Your task to perform on an android device: Empty the shopping cart on target.com. Search for bose quietcomfort 35 on target.com, select the first entry, and add it to the cart. Image 0: 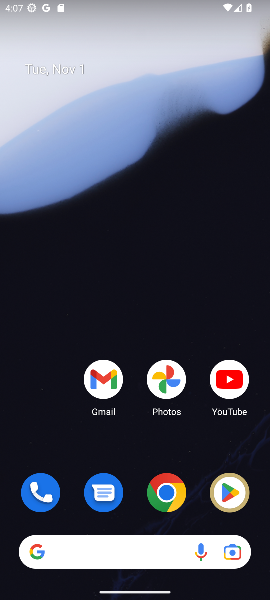
Step 0: click (171, 501)
Your task to perform on an android device: Empty the shopping cart on target.com. Search for bose quietcomfort 35 on target.com, select the first entry, and add it to the cart. Image 1: 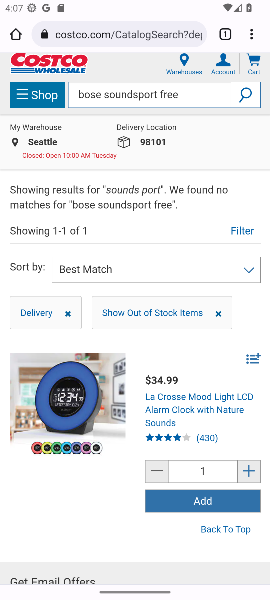
Step 1: click (105, 41)
Your task to perform on an android device: Empty the shopping cart on target.com. Search for bose quietcomfort 35 on target.com, select the first entry, and add it to the cart. Image 2: 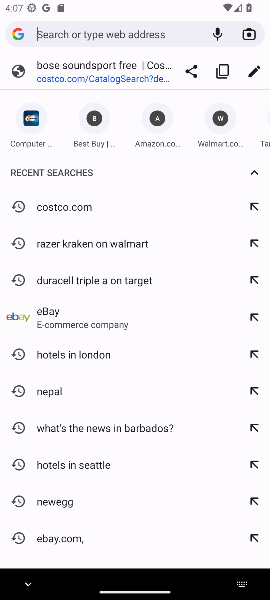
Step 2: type "target.com"
Your task to perform on an android device: Empty the shopping cart on target.com. Search for bose quietcomfort 35 on target.com, select the first entry, and add it to the cart. Image 3: 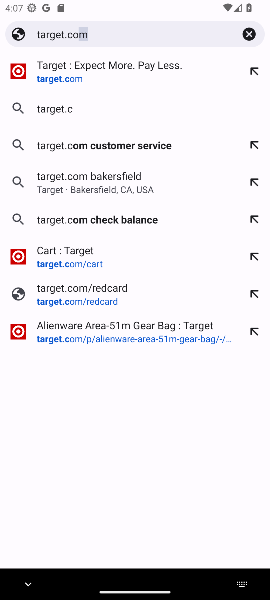
Step 3: type ""
Your task to perform on an android device: Empty the shopping cart on target.com. Search for bose quietcomfort 35 on target.com, select the first entry, and add it to the cart. Image 4: 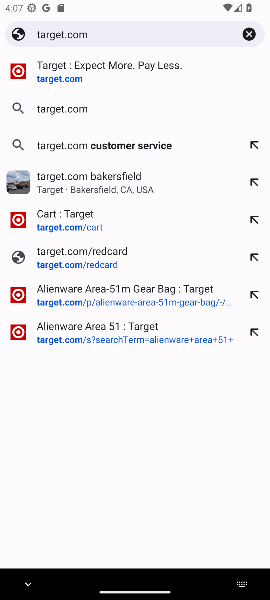
Step 4: click (107, 62)
Your task to perform on an android device: Empty the shopping cart on target.com. Search for bose quietcomfort 35 on target.com, select the first entry, and add it to the cart. Image 5: 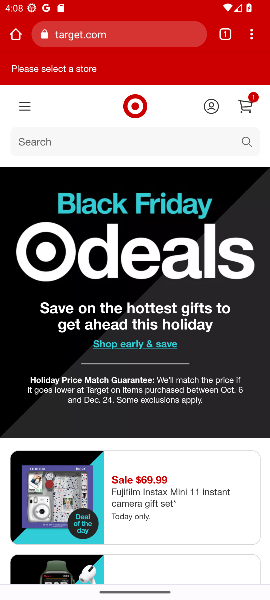
Step 5: drag from (142, 455) to (166, 207)
Your task to perform on an android device: Empty the shopping cart on target.com. Search for bose quietcomfort 35 on target.com, select the first entry, and add it to the cart. Image 6: 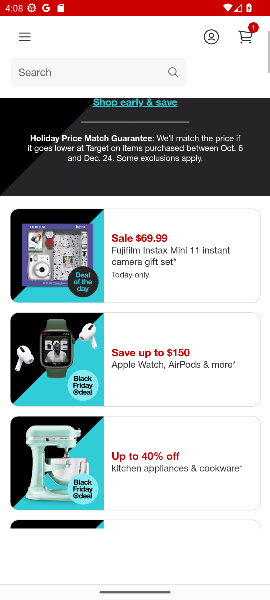
Step 6: drag from (136, 449) to (183, 542)
Your task to perform on an android device: Empty the shopping cart on target.com. Search for bose quietcomfort 35 on target.com, select the first entry, and add it to the cart. Image 7: 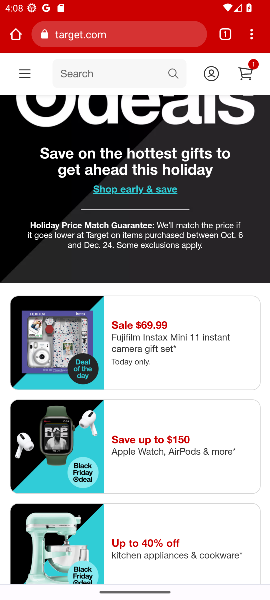
Step 7: click (251, 76)
Your task to perform on an android device: Empty the shopping cart on target.com. Search for bose quietcomfort 35 on target.com, select the first entry, and add it to the cart. Image 8: 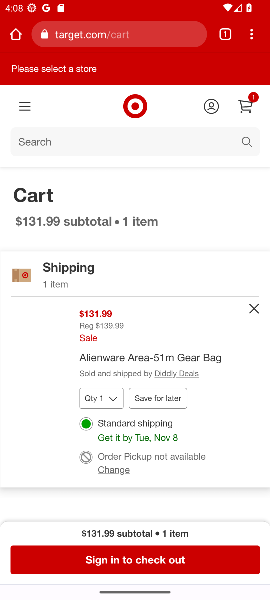
Step 8: click (96, 392)
Your task to perform on an android device: Empty the shopping cart on target.com. Search for bose quietcomfort 35 on target.com, select the first entry, and add it to the cart. Image 9: 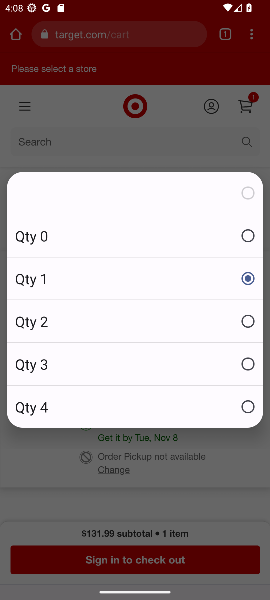
Step 9: click (117, 250)
Your task to perform on an android device: Empty the shopping cart on target.com. Search for bose quietcomfort 35 on target.com, select the first entry, and add it to the cart. Image 10: 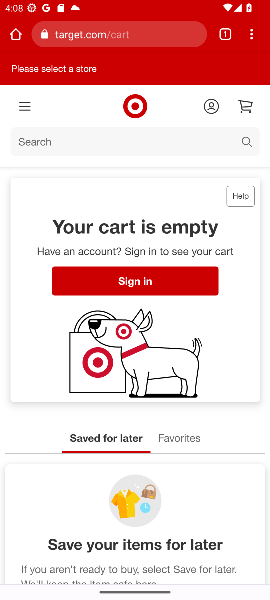
Step 10: click (96, 144)
Your task to perform on an android device: Empty the shopping cart on target.com. Search for bose quietcomfort 35 on target.com, select the first entry, and add it to the cart. Image 11: 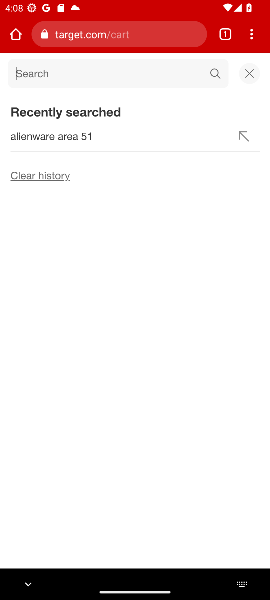
Step 11: type " bose quietcomfort 35"
Your task to perform on an android device: Empty the shopping cart on target.com. Search for bose quietcomfort 35 on target.com, select the first entry, and add it to the cart. Image 12: 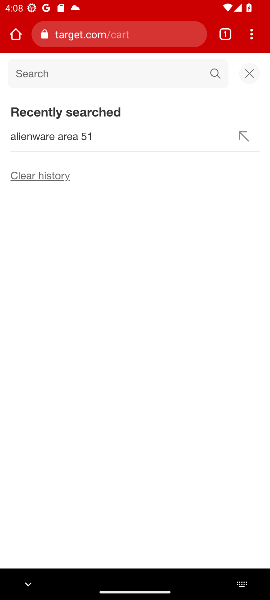
Step 12: type ""
Your task to perform on an android device: Empty the shopping cart on target.com. Search for bose quietcomfort 35 on target.com, select the first entry, and add it to the cart. Image 13: 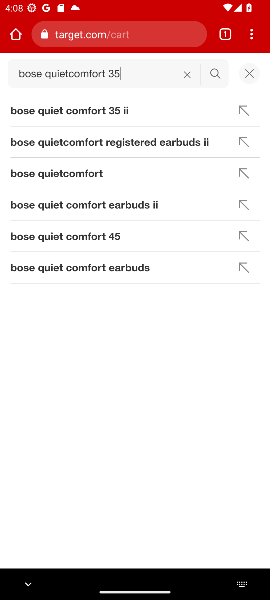
Step 13: press enter
Your task to perform on an android device: Empty the shopping cart on target.com. Search for bose quietcomfort 35 on target.com, select the first entry, and add it to the cart. Image 14: 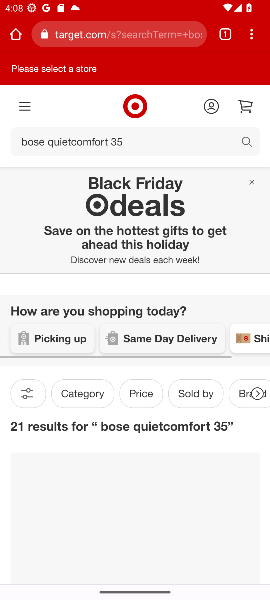
Step 14: drag from (154, 537) to (190, 320)
Your task to perform on an android device: Empty the shopping cart on target.com. Search for bose quietcomfort 35 on target.com, select the first entry, and add it to the cart. Image 15: 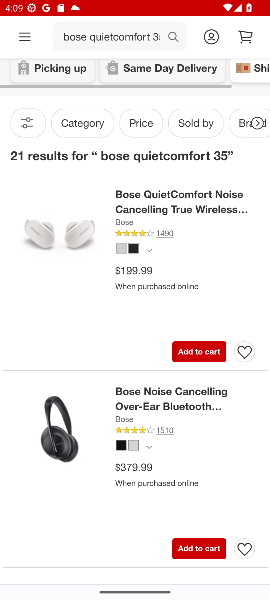
Step 15: click (173, 207)
Your task to perform on an android device: Empty the shopping cart on target.com. Search for bose quietcomfort 35 on target.com, select the first entry, and add it to the cart. Image 16: 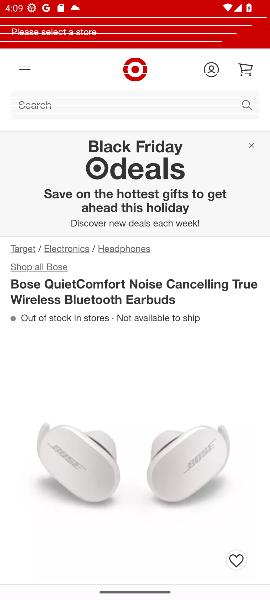
Step 16: drag from (153, 437) to (136, 209)
Your task to perform on an android device: Empty the shopping cart on target.com. Search for bose quietcomfort 35 on target.com, select the first entry, and add it to the cart. Image 17: 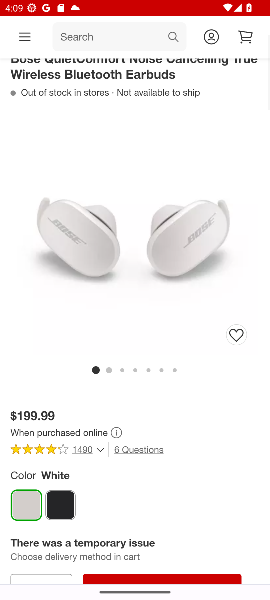
Step 17: drag from (149, 415) to (178, 206)
Your task to perform on an android device: Empty the shopping cart on target.com. Search for bose quietcomfort 35 on target.com, select the first entry, and add it to the cart. Image 18: 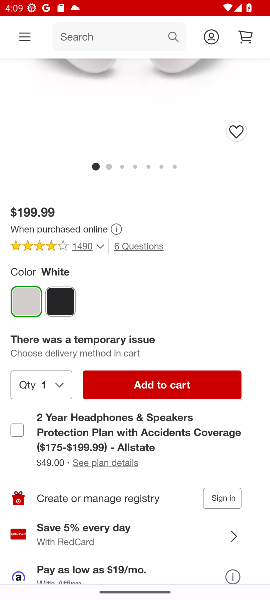
Step 18: click (146, 383)
Your task to perform on an android device: Empty the shopping cart on target.com. Search for bose quietcomfort 35 on target.com, select the first entry, and add it to the cart. Image 19: 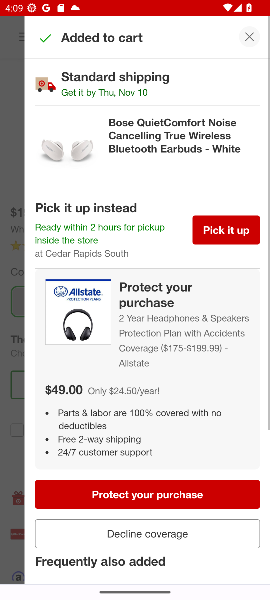
Step 19: click (190, 507)
Your task to perform on an android device: Empty the shopping cart on target.com. Search for bose quietcomfort 35 on target.com, select the first entry, and add it to the cart. Image 20: 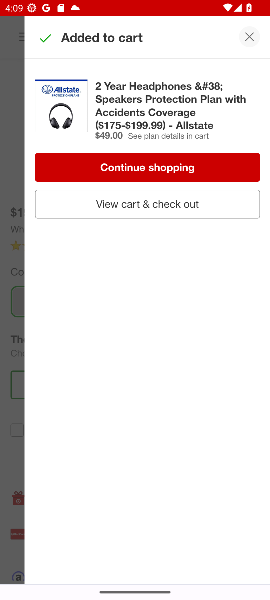
Step 20: click (181, 171)
Your task to perform on an android device: Empty the shopping cart on target.com. Search for bose quietcomfort 35 on target.com, select the first entry, and add it to the cart. Image 21: 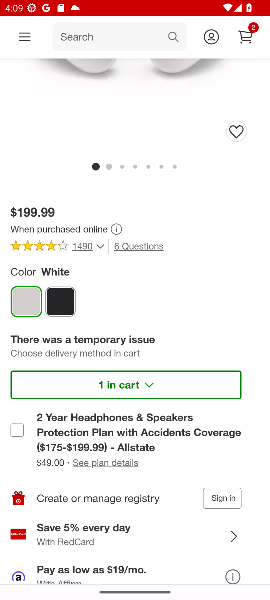
Step 21: drag from (168, 142) to (111, 134)
Your task to perform on an android device: Empty the shopping cart on target.com. Search for bose quietcomfort 35 on target.com, select the first entry, and add it to the cart. Image 22: 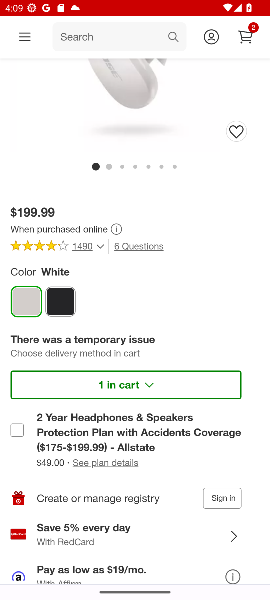
Step 22: drag from (165, 133) to (40, 125)
Your task to perform on an android device: Empty the shopping cart on target.com. Search for bose quietcomfort 35 on target.com, select the first entry, and add it to the cart. Image 23: 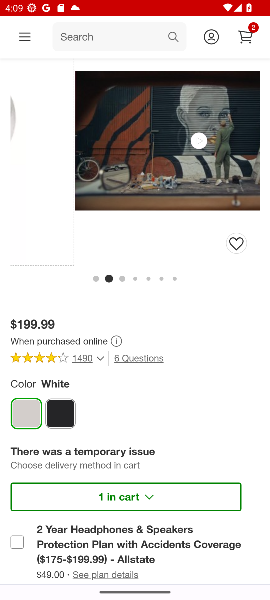
Step 23: drag from (165, 131) to (9, 143)
Your task to perform on an android device: Empty the shopping cart on target.com. Search for bose quietcomfort 35 on target.com, select the first entry, and add it to the cart. Image 24: 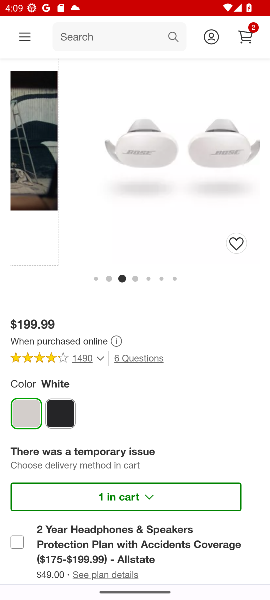
Step 24: drag from (154, 165) to (6, 179)
Your task to perform on an android device: Empty the shopping cart on target.com. Search for bose quietcomfort 35 on target.com, select the first entry, and add it to the cart. Image 25: 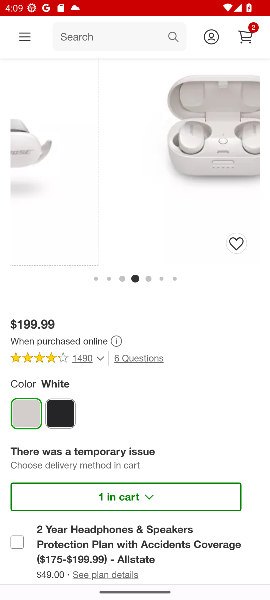
Step 25: drag from (141, 203) to (11, 200)
Your task to perform on an android device: Empty the shopping cart on target.com. Search for bose quietcomfort 35 on target.com, select the first entry, and add it to the cart. Image 26: 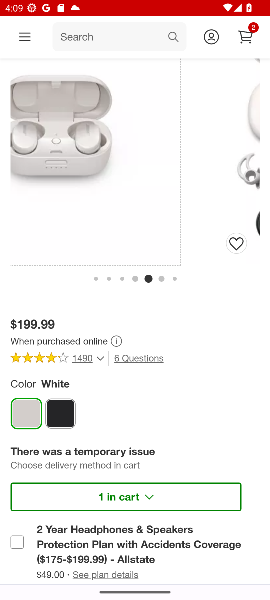
Step 26: drag from (181, 200) to (0, 197)
Your task to perform on an android device: Empty the shopping cart on target.com. Search for bose quietcomfort 35 on target.com, select the first entry, and add it to the cart. Image 27: 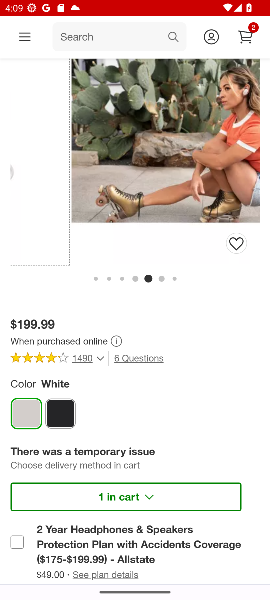
Step 27: drag from (190, 203) to (59, 199)
Your task to perform on an android device: Empty the shopping cart on target.com. Search for bose quietcomfort 35 on target.com, select the first entry, and add it to the cart. Image 28: 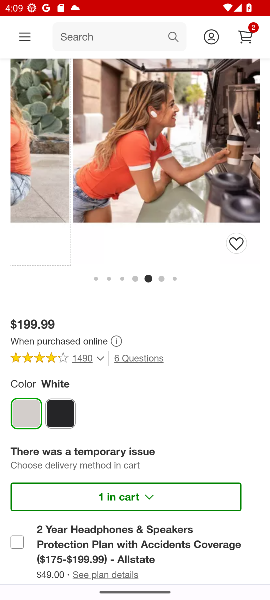
Step 28: drag from (136, 199) to (28, 203)
Your task to perform on an android device: Empty the shopping cart on target.com. Search for bose quietcomfort 35 on target.com, select the first entry, and add it to the cart. Image 29: 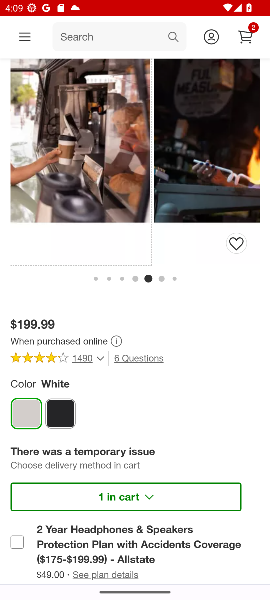
Step 29: drag from (169, 233) to (22, 235)
Your task to perform on an android device: Empty the shopping cart on target.com. Search for bose quietcomfort 35 on target.com, select the first entry, and add it to the cart. Image 30: 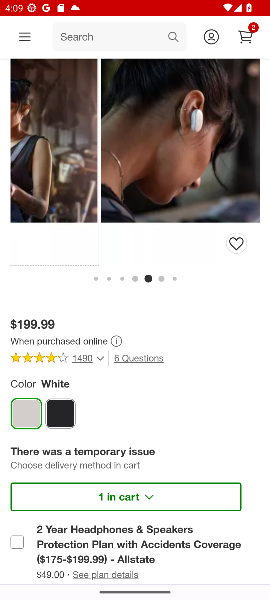
Step 30: drag from (154, 238) to (10, 233)
Your task to perform on an android device: Empty the shopping cart on target.com. Search for bose quietcomfort 35 on target.com, select the first entry, and add it to the cart. Image 31: 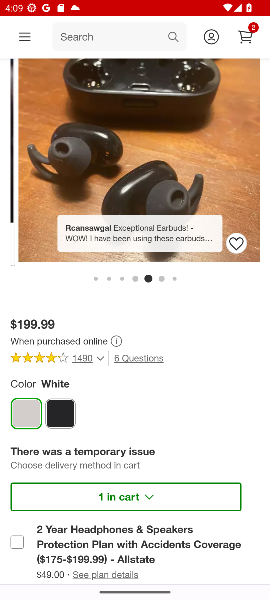
Step 31: drag from (150, 232) to (18, 228)
Your task to perform on an android device: Empty the shopping cart on target.com. Search for bose quietcomfort 35 on target.com, select the first entry, and add it to the cart. Image 32: 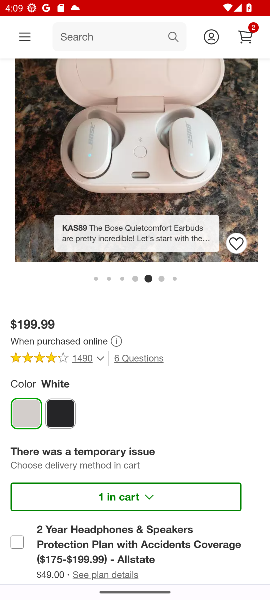
Step 32: drag from (188, 236) to (33, 234)
Your task to perform on an android device: Empty the shopping cart on target.com. Search for bose quietcomfort 35 on target.com, select the first entry, and add it to the cart. Image 33: 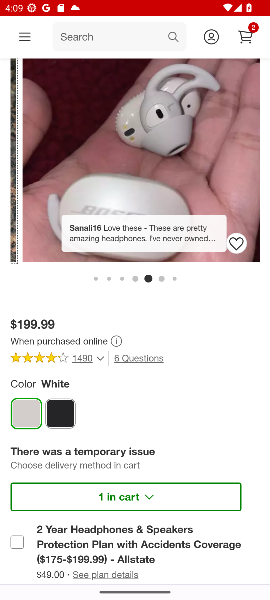
Step 33: drag from (160, 235) to (48, 235)
Your task to perform on an android device: Empty the shopping cart on target.com. Search for bose quietcomfort 35 on target.com, select the first entry, and add it to the cart. Image 34: 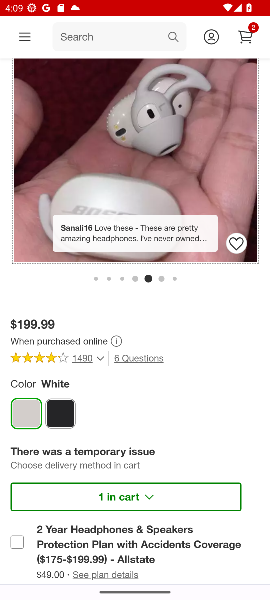
Step 34: drag from (136, 241) to (14, 236)
Your task to perform on an android device: Empty the shopping cart on target.com. Search for bose quietcomfort 35 on target.com, select the first entry, and add it to the cart. Image 35: 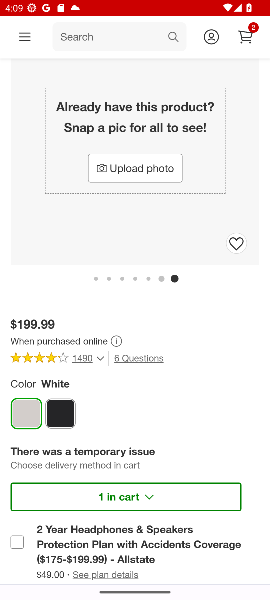
Step 35: drag from (165, 221) to (52, 210)
Your task to perform on an android device: Empty the shopping cart on target.com. Search for bose quietcomfort 35 on target.com, select the first entry, and add it to the cart. Image 36: 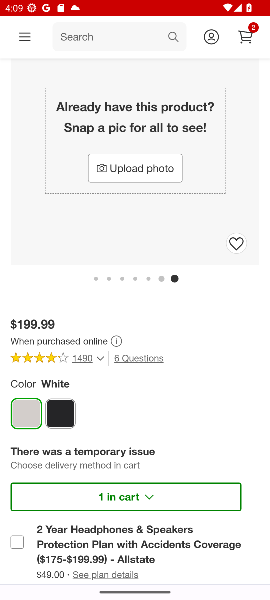
Step 36: press back button
Your task to perform on an android device: Empty the shopping cart on target.com. Search for bose quietcomfort 35 on target.com, select the first entry, and add it to the cart. Image 37: 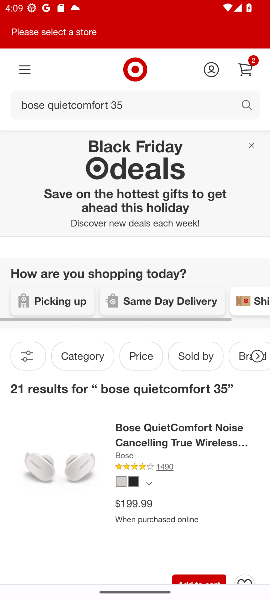
Step 37: drag from (86, 421) to (131, 196)
Your task to perform on an android device: Empty the shopping cart on target.com. Search for bose quietcomfort 35 on target.com, select the first entry, and add it to the cart. Image 38: 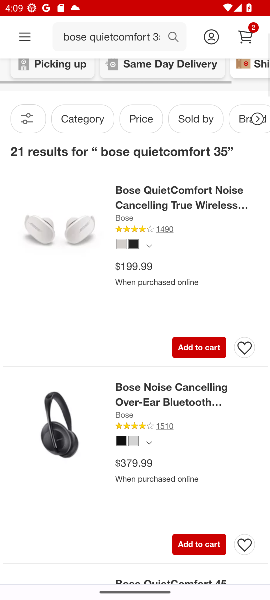
Step 38: drag from (87, 424) to (88, 179)
Your task to perform on an android device: Empty the shopping cart on target.com. Search for bose quietcomfort 35 on target.com, select the first entry, and add it to the cart. Image 39: 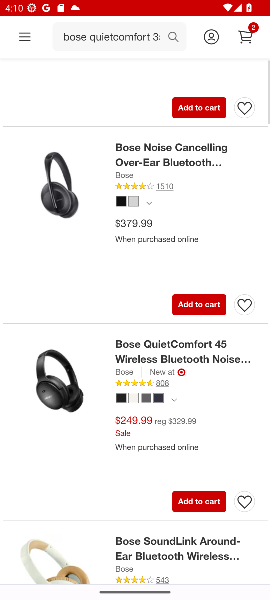
Step 39: drag from (80, 399) to (95, 250)
Your task to perform on an android device: Empty the shopping cart on target.com. Search for bose quietcomfort 35 on target.com, select the first entry, and add it to the cart. Image 40: 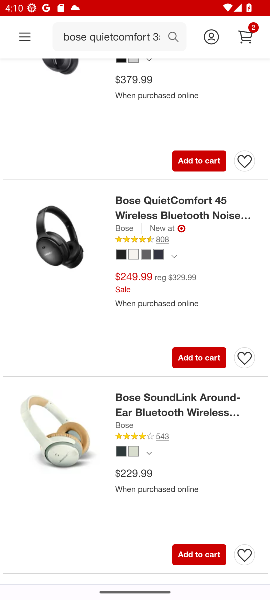
Step 40: drag from (58, 432) to (77, 269)
Your task to perform on an android device: Empty the shopping cart on target.com. Search for bose quietcomfort 35 on target.com, select the first entry, and add it to the cart. Image 41: 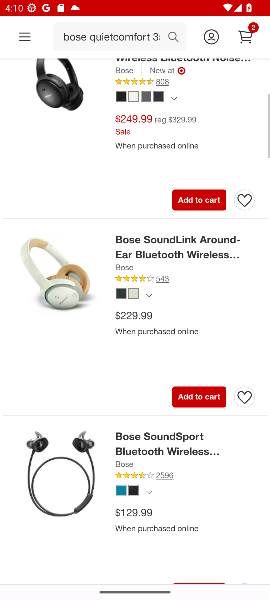
Step 41: drag from (43, 426) to (63, 268)
Your task to perform on an android device: Empty the shopping cart on target.com. Search for bose quietcomfort 35 on target.com, select the first entry, and add it to the cart. Image 42: 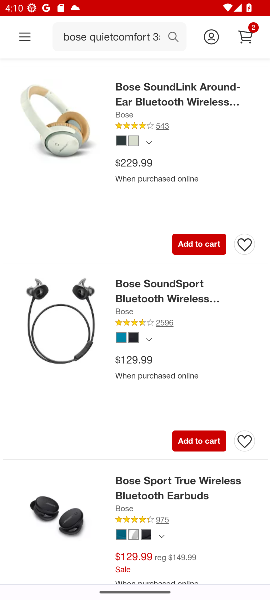
Step 42: drag from (130, 377) to (153, 192)
Your task to perform on an android device: Empty the shopping cart on target.com. Search for bose quietcomfort 35 on target.com, select the first entry, and add it to the cart. Image 43: 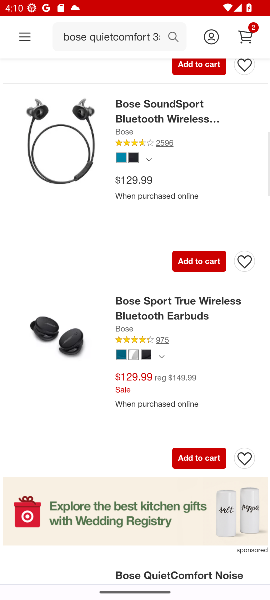
Step 43: drag from (128, 352) to (144, 211)
Your task to perform on an android device: Empty the shopping cart on target.com. Search for bose quietcomfort 35 on target.com, select the first entry, and add it to the cart. Image 44: 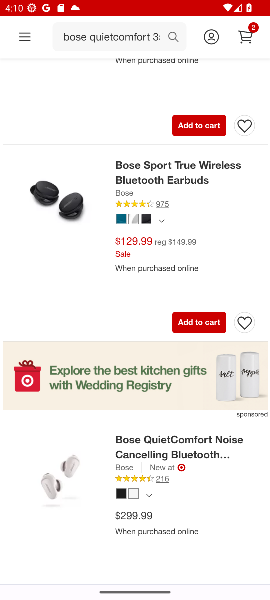
Step 44: drag from (115, 358) to (129, 247)
Your task to perform on an android device: Empty the shopping cart on target.com. Search for bose quietcomfort 35 on target.com, select the first entry, and add it to the cart. Image 45: 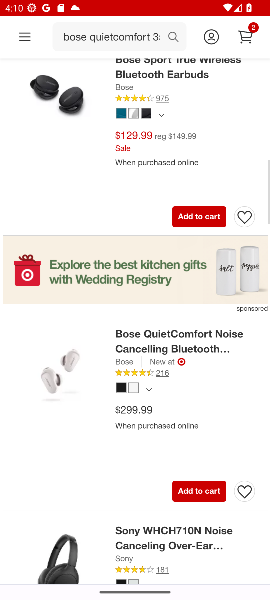
Step 45: drag from (112, 337) to (117, 193)
Your task to perform on an android device: Empty the shopping cart on target.com. Search for bose quietcomfort 35 on target.com, select the first entry, and add it to the cart. Image 46: 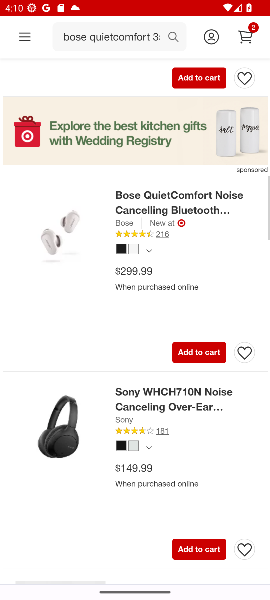
Step 46: drag from (107, 339) to (128, 181)
Your task to perform on an android device: Empty the shopping cart on target.com. Search for bose quietcomfort 35 on target.com, select the first entry, and add it to the cart. Image 47: 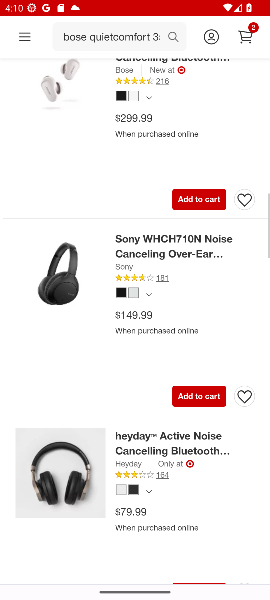
Step 47: drag from (121, 404) to (119, 205)
Your task to perform on an android device: Empty the shopping cart on target.com. Search for bose quietcomfort 35 on target.com, select the first entry, and add it to the cart. Image 48: 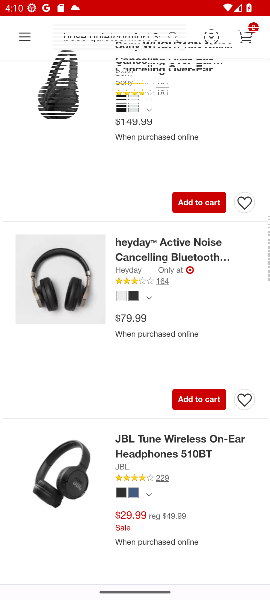
Step 48: drag from (104, 398) to (127, 221)
Your task to perform on an android device: Empty the shopping cart on target.com. Search for bose quietcomfort 35 on target.com, select the first entry, and add it to the cart. Image 49: 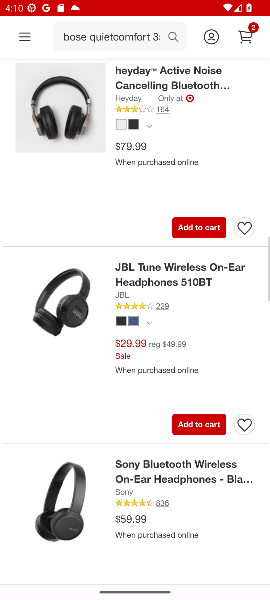
Step 49: drag from (123, 349) to (121, 197)
Your task to perform on an android device: Empty the shopping cart on target.com. Search for bose quietcomfort 35 on target.com, select the first entry, and add it to the cart. Image 50: 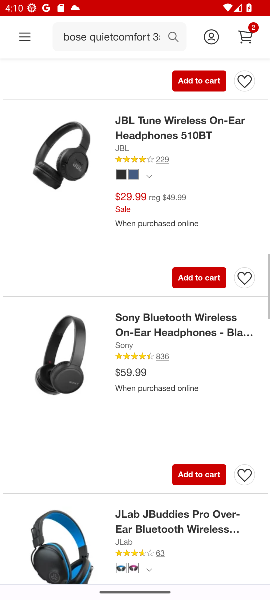
Step 50: drag from (117, 414) to (121, 227)
Your task to perform on an android device: Empty the shopping cart on target.com. Search for bose quietcomfort 35 on target.com, select the first entry, and add it to the cart. Image 51: 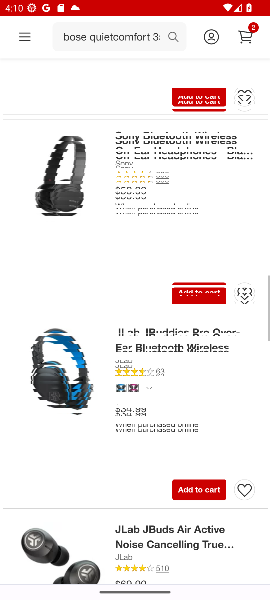
Step 51: drag from (118, 354) to (143, 200)
Your task to perform on an android device: Empty the shopping cart on target.com. Search for bose quietcomfort 35 on target.com, select the first entry, and add it to the cart. Image 52: 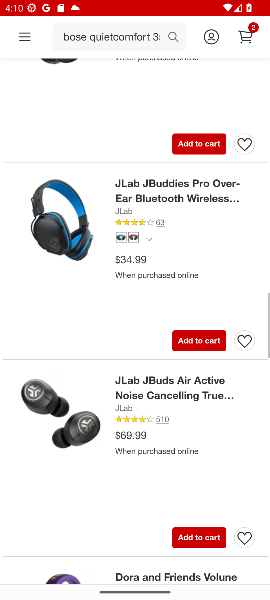
Step 52: drag from (140, 435) to (177, 221)
Your task to perform on an android device: Empty the shopping cart on target.com. Search for bose quietcomfort 35 on target.com, select the first entry, and add it to the cart. Image 53: 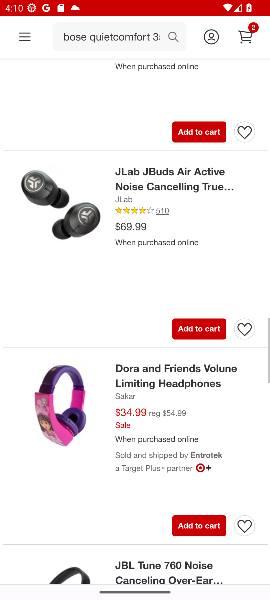
Step 53: drag from (174, 341) to (181, 240)
Your task to perform on an android device: Empty the shopping cart on target.com. Search for bose quietcomfort 35 on target.com, select the first entry, and add it to the cart. Image 54: 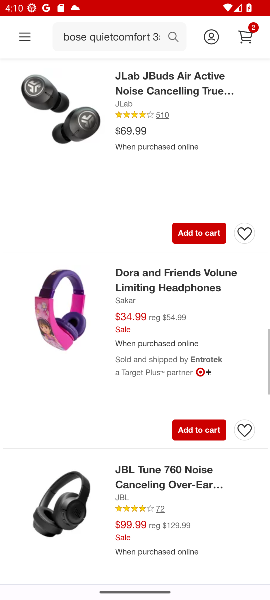
Step 54: drag from (148, 359) to (169, 235)
Your task to perform on an android device: Empty the shopping cart on target.com. Search for bose quietcomfort 35 on target.com, select the first entry, and add it to the cart. Image 55: 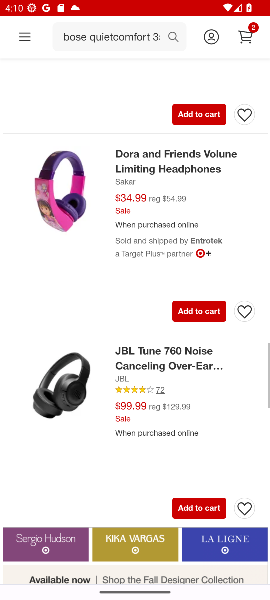
Step 55: drag from (138, 322) to (136, 245)
Your task to perform on an android device: Empty the shopping cart on target.com. Search for bose quietcomfort 35 on target.com, select the first entry, and add it to the cart. Image 56: 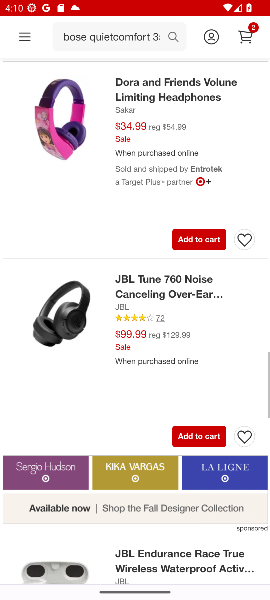
Step 56: drag from (152, 449) to (164, 251)
Your task to perform on an android device: Empty the shopping cart on target.com. Search for bose quietcomfort 35 on target.com, select the first entry, and add it to the cart. Image 57: 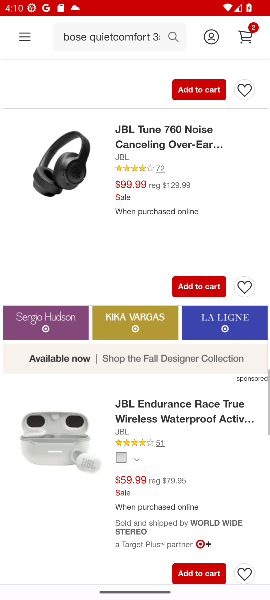
Step 57: drag from (151, 485) to (181, 315)
Your task to perform on an android device: Empty the shopping cart on target.com. Search for bose quietcomfort 35 on target.com, select the first entry, and add it to the cart. Image 58: 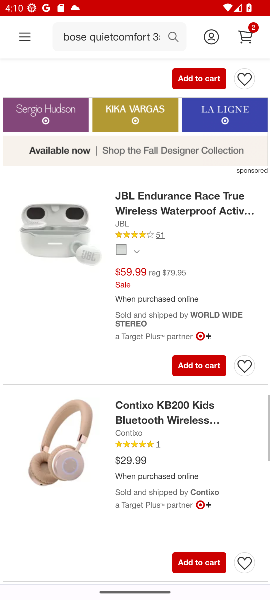
Step 58: drag from (156, 469) to (159, 279)
Your task to perform on an android device: Empty the shopping cart on target.com. Search for bose quietcomfort 35 on target.com, select the first entry, and add it to the cart. Image 59: 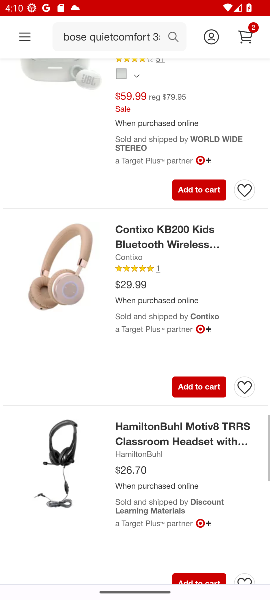
Step 59: drag from (145, 410) to (176, 271)
Your task to perform on an android device: Empty the shopping cart on target.com. Search for bose quietcomfort 35 on target.com, select the first entry, and add it to the cart. Image 60: 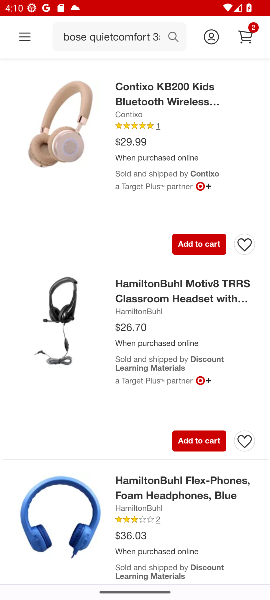
Step 60: drag from (136, 435) to (151, 290)
Your task to perform on an android device: Empty the shopping cart on target.com. Search for bose quietcomfort 35 on target.com, select the first entry, and add it to the cart. Image 61: 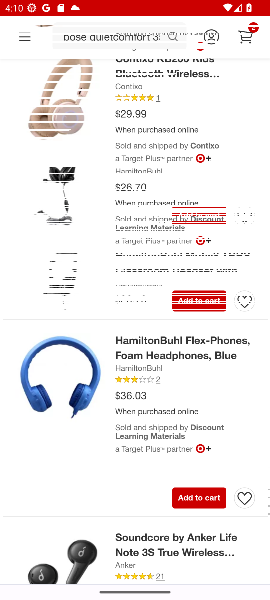
Step 61: drag from (125, 438) to (120, 290)
Your task to perform on an android device: Empty the shopping cart on target.com. Search for bose quietcomfort 35 on target.com, select the first entry, and add it to the cart. Image 62: 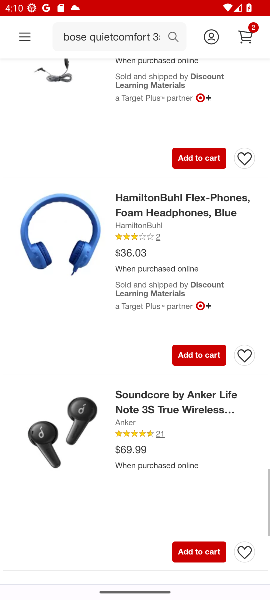
Step 62: drag from (106, 412) to (104, 269)
Your task to perform on an android device: Empty the shopping cart on target.com. Search for bose quietcomfort 35 on target.com, select the first entry, and add it to the cart. Image 63: 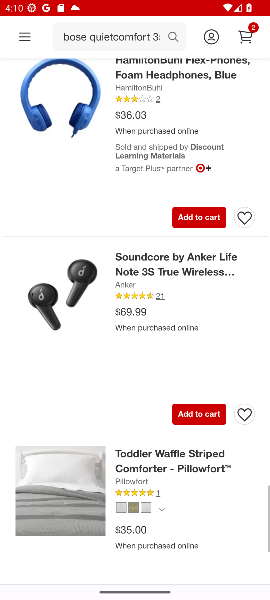
Step 63: drag from (100, 421) to (114, 275)
Your task to perform on an android device: Empty the shopping cart on target.com. Search for bose quietcomfort 35 on target.com, select the first entry, and add it to the cart. Image 64: 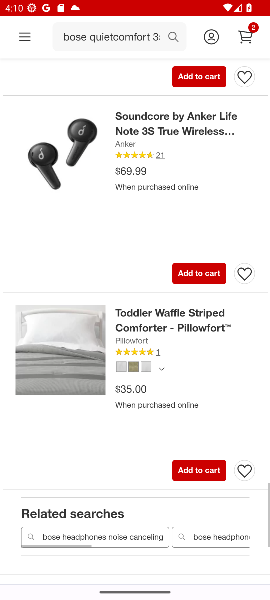
Step 64: drag from (87, 357) to (102, 293)
Your task to perform on an android device: Empty the shopping cart on target.com. Search for bose quietcomfort 35 on target.com, select the first entry, and add it to the cart. Image 65: 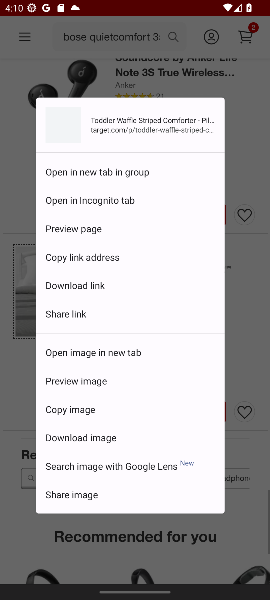
Step 65: drag from (85, 343) to (99, 244)
Your task to perform on an android device: Empty the shopping cart on target.com. Search for bose quietcomfort 35 on target.com, select the first entry, and add it to the cart. Image 66: 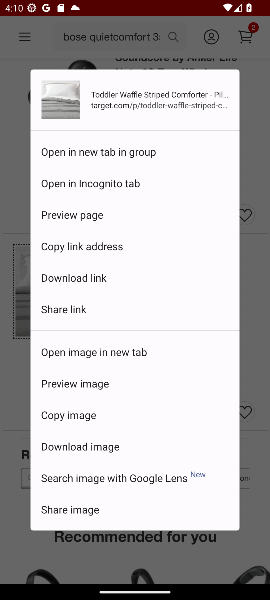
Step 66: click (265, 363)
Your task to perform on an android device: Empty the shopping cart on target.com. Search for bose quietcomfort 35 on target.com, select the first entry, and add it to the cart. Image 67: 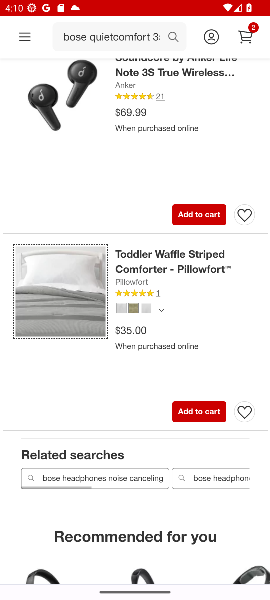
Step 67: drag from (75, 478) to (97, 279)
Your task to perform on an android device: Empty the shopping cart on target.com. Search for bose quietcomfort 35 on target.com, select the first entry, and add it to the cart. Image 68: 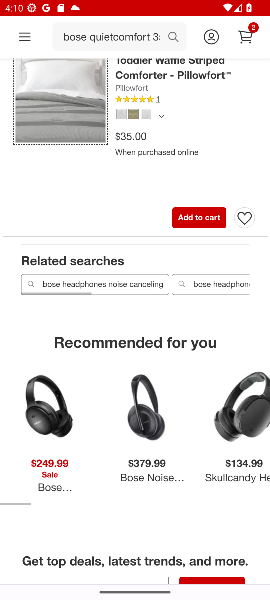
Step 68: press back button
Your task to perform on an android device: Empty the shopping cart on target.com. Search for bose quietcomfort 35 on target.com, select the first entry, and add it to the cart. Image 69: 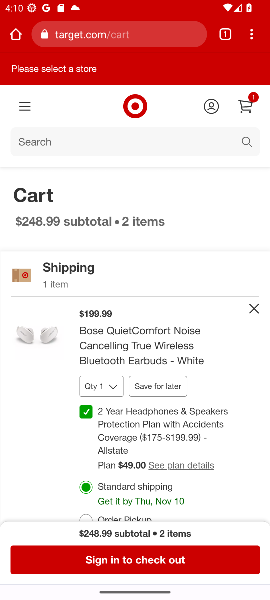
Step 69: drag from (141, 437) to (190, 294)
Your task to perform on an android device: Empty the shopping cart on target.com. Search for bose quietcomfort 35 on target.com, select the first entry, and add it to the cart. Image 70: 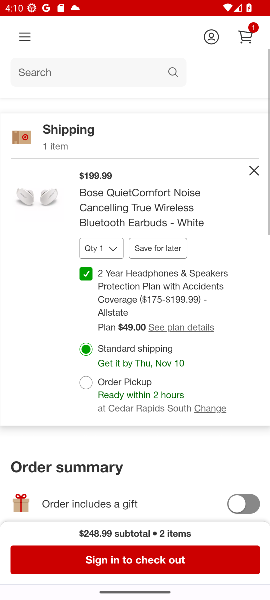
Step 70: drag from (152, 314) to (154, 286)
Your task to perform on an android device: Empty the shopping cart on target.com. Search for bose quietcomfort 35 on target.com, select the first entry, and add it to the cart. Image 71: 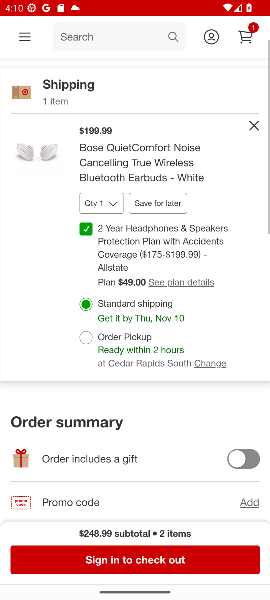
Step 71: drag from (127, 381) to (137, 264)
Your task to perform on an android device: Empty the shopping cart on target.com. Search for bose quietcomfort 35 on target.com, select the first entry, and add it to the cart. Image 72: 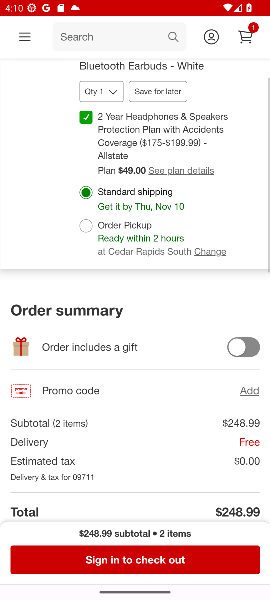
Step 72: drag from (98, 365) to (104, 258)
Your task to perform on an android device: Empty the shopping cart on target.com. Search for bose quietcomfort 35 on target.com, select the first entry, and add it to the cart. Image 73: 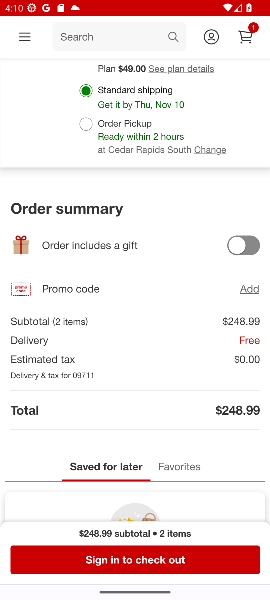
Step 73: drag from (107, 370) to (130, 246)
Your task to perform on an android device: Empty the shopping cart on target.com. Search for bose quietcomfort 35 on target.com, select the first entry, and add it to the cart. Image 74: 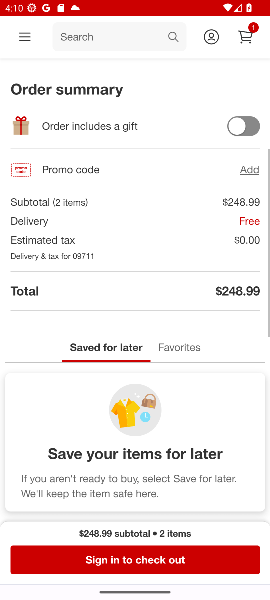
Step 74: drag from (101, 373) to (107, 272)
Your task to perform on an android device: Empty the shopping cart on target.com. Search for bose quietcomfort 35 on target.com, select the first entry, and add it to the cart. Image 75: 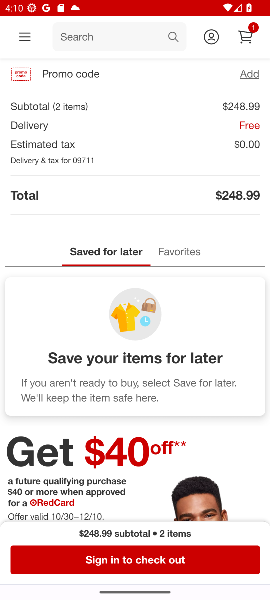
Step 75: drag from (108, 393) to (137, 246)
Your task to perform on an android device: Empty the shopping cart on target.com. Search for bose quietcomfort 35 on target.com, select the first entry, and add it to the cart. Image 76: 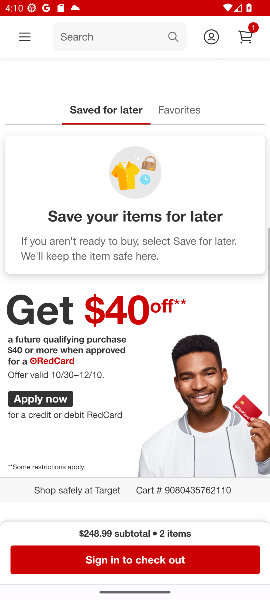
Step 76: drag from (155, 315) to (174, 234)
Your task to perform on an android device: Empty the shopping cart on target.com. Search for bose quietcomfort 35 on target.com, select the first entry, and add it to the cart. Image 77: 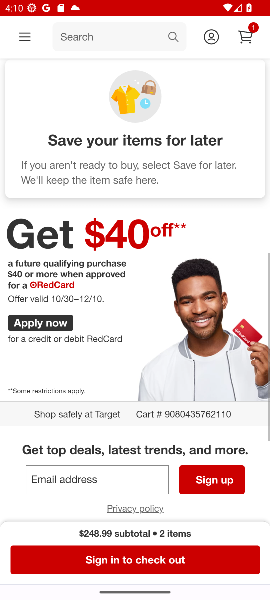
Step 77: drag from (150, 366) to (169, 191)
Your task to perform on an android device: Empty the shopping cart on target.com. Search for bose quietcomfort 35 on target.com, select the first entry, and add it to the cart. Image 78: 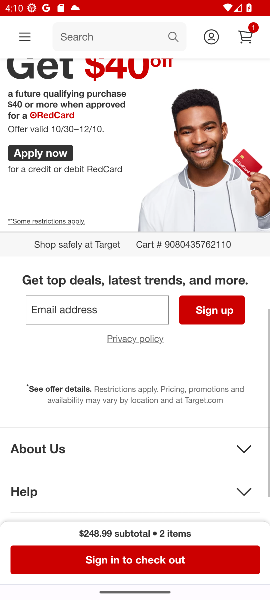
Step 78: drag from (131, 331) to (153, 205)
Your task to perform on an android device: Empty the shopping cart on target.com. Search for bose quietcomfort 35 on target.com, select the first entry, and add it to the cart. Image 79: 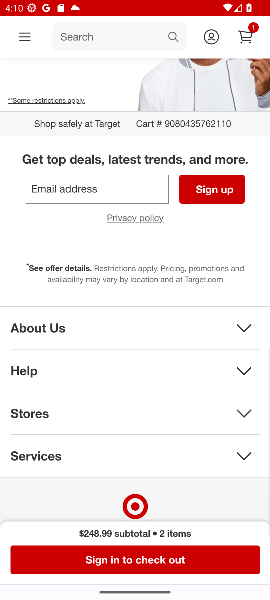
Step 79: drag from (133, 313) to (140, 197)
Your task to perform on an android device: Empty the shopping cart on target.com. Search for bose quietcomfort 35 on target.com, select the first entry, and add it to the cart. Image 80: 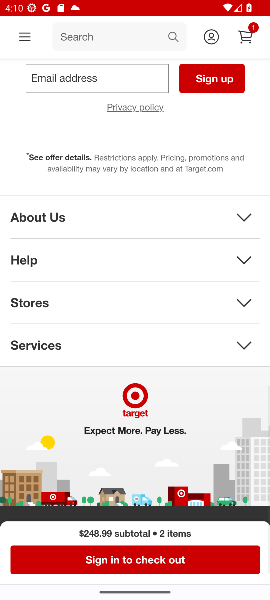
Step 80: drag from (122, 285) to (136, 208)
Your task to perform on an android device: Empty the shopping cart on target.com. Search for bose quietcomfort 35 on target.com, select the first entry, and add it to the cart. Image 81: 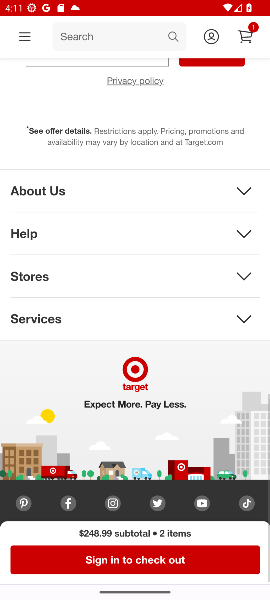
Step 81: drag from (134, 346) to (149, 207)
Your task to perform on an android device: Empty the shopping cart on target.com. Search for bose quietcomfort 35 on target.com, select the first entry, and add it to the cart. Image 82: 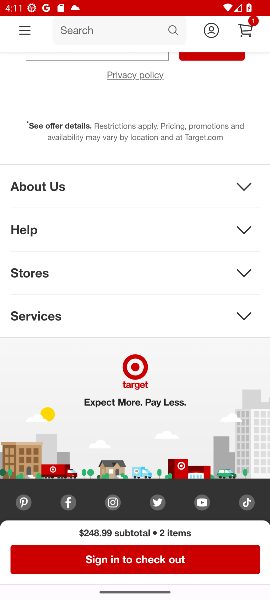
Step 82: drag from (121, 298) to (117, 210)
Your task to perform on an android device: Empty the shopping cart on target.com. Search for bose quietcomfort 35 on target.com, select the first entry, and add it to the cart. Image 83: 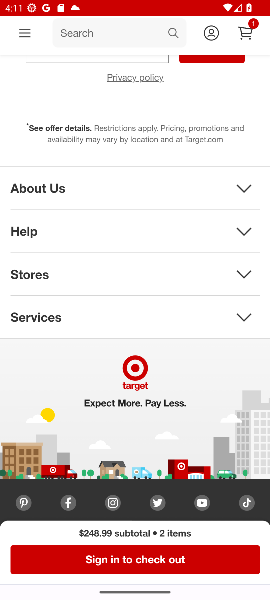
Step 83: drag from (94, 349) to (109, 192)
Your task to perform on an android device: Empty the shopping cart on target.com. Search for bose quietcomfort 35 on target.com, select the first entry, and add it to the cart. Image 84: 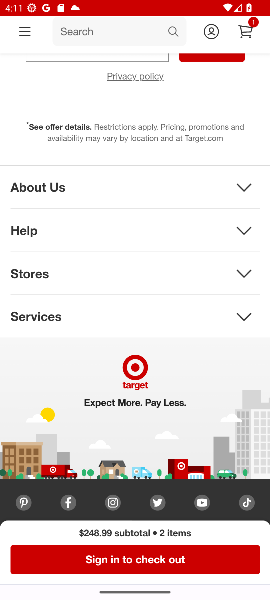
Step 84: drag from (88, 279) to (86, 191)
Your task to perform on an android device: Empty the shopping cart on target.com. Search for bose quietcomfort 35 on target.com, select the first entry, and add it to the cart. Image 85: 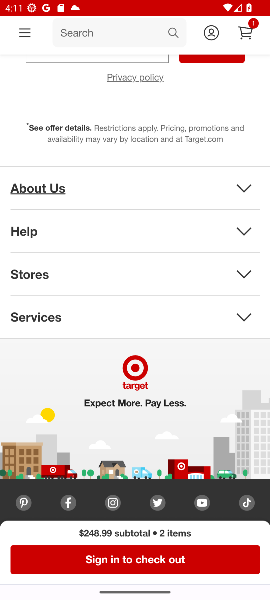
Step 85: drag from (87, 259) to (89, 199)
Your task to perform on an android device: Empty the shopping cart on target.com. Search for bose quietcomfort 35 on target.com, select the first entry, and add it to the cart. Image 86: 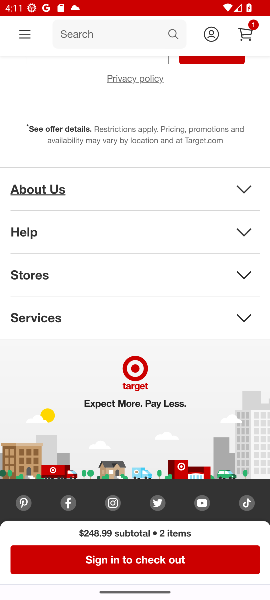
Step 86: drag from (87, 213) to (103, 136)
Your task to perform on an android device: Empty the shopping cart on target.com. Search for bose quietcomfort 35 on target.com, select the first entry, and add it to the cart. Image 87: 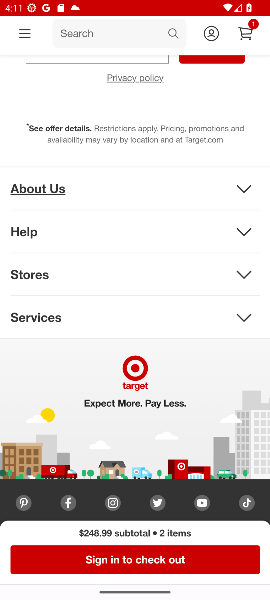
Step 87: drag from (102, 226) to (99, 157)
Your task to perform on an android device: Empty the shopping cart on target.com. Search for bose quietcomfort 35 on target.com, select the first entry, and add it to the cart. Image 88: 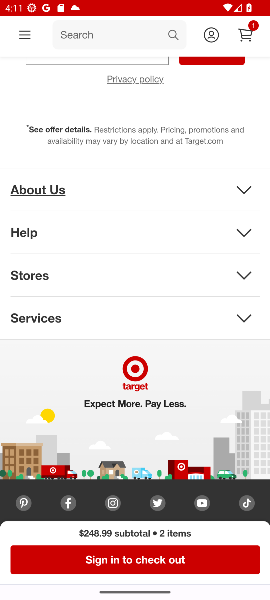
Step 88: drag from (134, 253) to (149, 168)
Your task to perform on an android device: Empty the shopping cart on target.com. Search for bose quietcomfort 35 on target.com, select the first entry, and add it to the cart. Image 89: 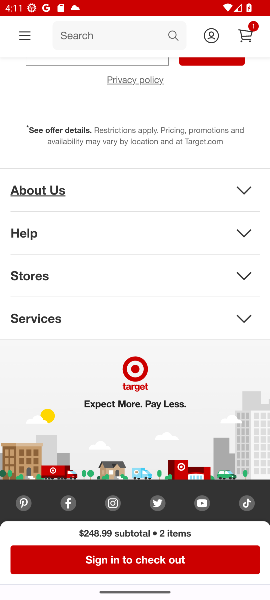
Step 89: drag from (98, 234) to (96, 132)
Your task to perform on an android device: Empty the shopping cart on target.com. Search for bose quietcomfort 35 on target.com, select the first entry, and add it to the cart. Image 90: 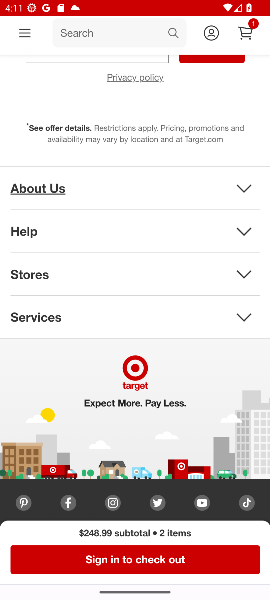
Step 90: drag from (85, 212) to (96, 144)
Your task to perform on an android device: Empty the shopping cart on target.com. Search for bose quietcomfort 35 on target.com, select the first entry, and add it to the cart. Image 91: 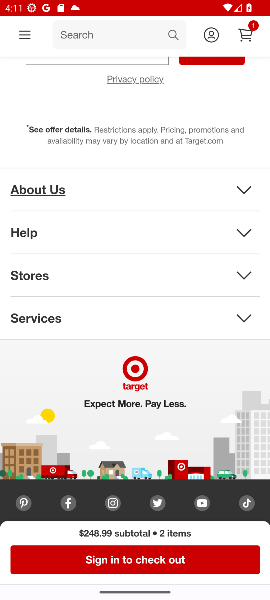
Step 91: drag from (87, 241) to (94, 91)
Your task to perform on an android device: Empty the shopping cart on target.com. Search for bose quietcomfort 35 on target.com, select the first entry, and add it to the cart. Image 92: 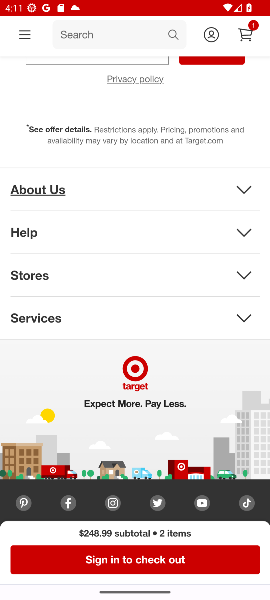
Step 92: drag from (77, 185) to (95, 59)
Your task to perform on an android device: Empty the shopping cart on target.com. Search for bose quietcomfort 35 on target.com, select the first entry, and add it to the cart. Image 93: 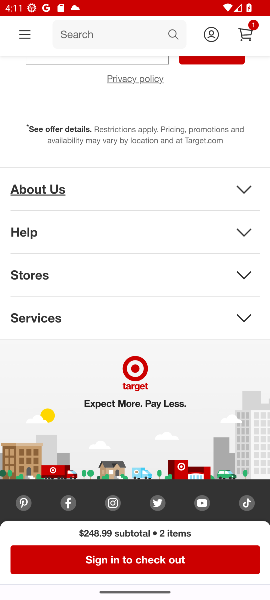
Step 93: drag from (78, 277) to (91, 150)
Your task to perform on an android device: Empty the shopping cart on target.com. Search for bose quietcomfort 35 on target.com, select the first entry, and add it to the cart. Image 94: 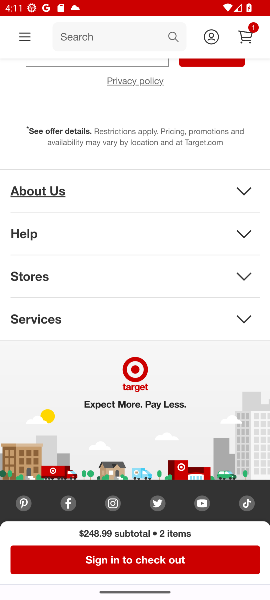
Step 94: drag from (79, 244) to (74, 178)
Your task to perform on an android device: Empty the shopping cart on target.com. Search for bose quietcomfort 35 on target.com, select the first entry, and add it to the cart. Image 95: 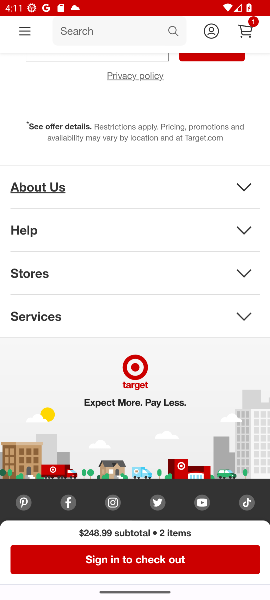
Step 95: drag from (48, 270) to (76, 162)
Your task to perform on an android device: Empty the shopping cart on target.com. Search for bose quietcomfort 35 on target.com, select the first entry, and add it to the cart. Image 96: 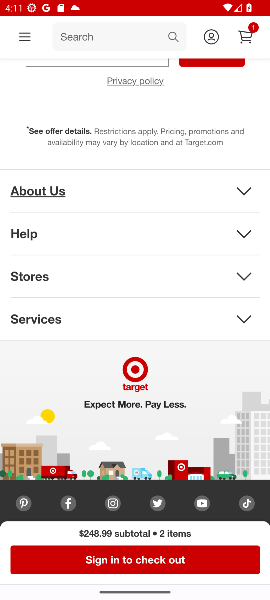
Step 96: drag from (59, 284) to (82, 187)
Your task to perform on an android device: Empty the shopping cart on target.com. Search for bose quietcomfort 35 on target.com, select the first entry, and add it to the cart. Image 97: 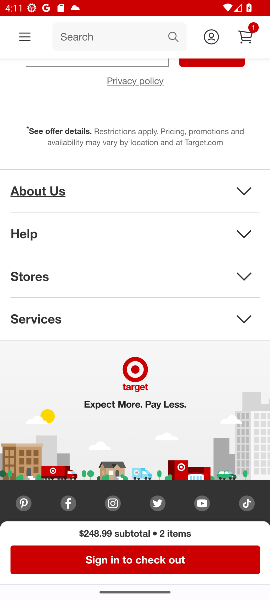
Step 97: click (90, 208)
Your task to perform on an android device: Empty the shopping cart on target.com. Search for bose quietcomfort 35 on target.com, select the first entry, and add it to the cart. Image 98: 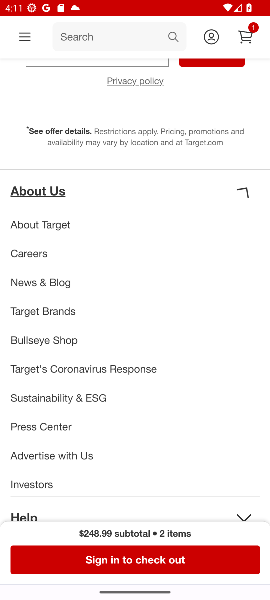
Step 98: press back button
Your task to perform on an android device: Empty the shopping cart on target.com. Search for bose quietcomfort 35 on target.com, select the first entry, and add it to the cart. Image 99: 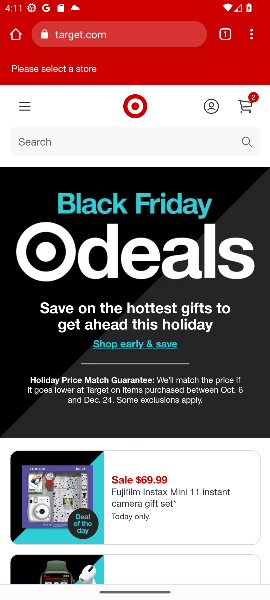
Step 99: drag from (164, 382) to (206, 221)
Your task to perform on an android device: Empty the shopping cart on target.com. Search for bose quietcomfort 35 on target.com, select the first entry, and add it to the cart. Image 100: 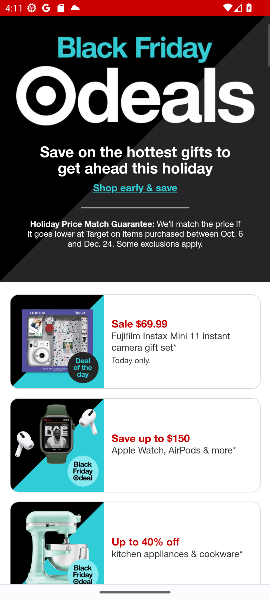
Step 100: drag from (153, 313) to (155, 208)
Your task to perform on an android device: Empty the shopping cart on target.com. Search for bose quietcomfort 35 on target.com, select the first entry, and add it to the cart. Image 101: 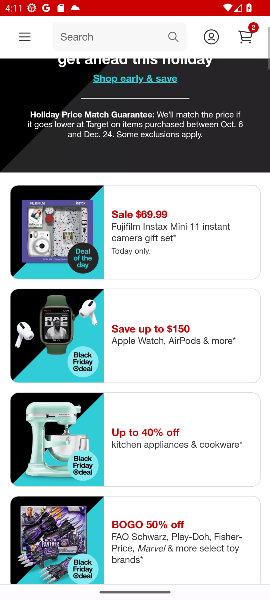
Step 101: drag from (158, 399) to (180, 233)
Your task to perform on an android device: Empty the shopping cart on target.com. Search for bose quietcomfort 35 on target.com, select the first entry, and add it to the cart. Image 102: 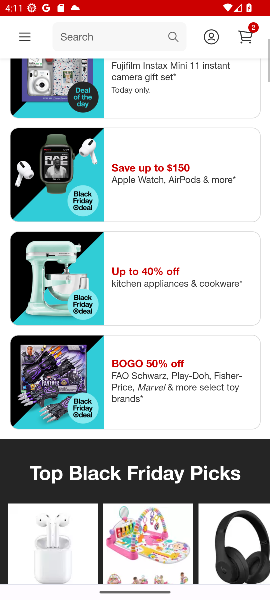
Step 102: drag from (173, 356) to (185, 210)
Your task to perform on an android device: Empty the shopping cart on target.com. Search for bose quietcomfort 35 on target.com, select the first entry, and add it to the cart. Image 103: 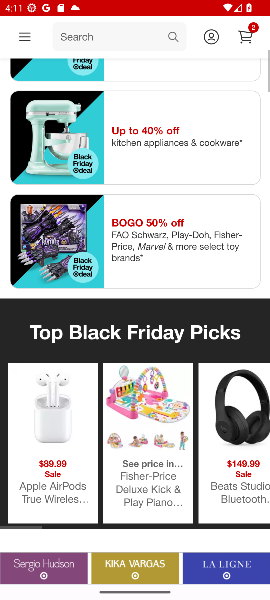
Step 103: drag from (160, 353) to (196, 220)
Your task to perform on an android device: Empty the shopping cart on target.com. Search for bose quietcomfort 35 on target.com, select the first entry, and add it to the cart. Image 104: 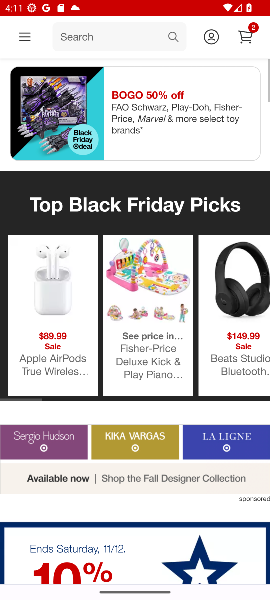
Step 104: drag from (167, 328) to (181, 223)
Your task to perform on an android device: Empty the shopping cart on target.com. Search for bose quietcomfort 35 on target.com, select the first entry, and add it to the cart. Image 105: 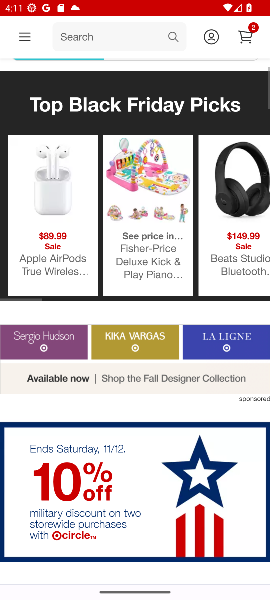
Step 105: drag from (159, 304) to (169, 198)
Your task to perform on an android device: Empty the shopping cart on target.com. Search for bose quietcomfort 35 on target.com, select the first entry, and add it to the cart. Image 106: 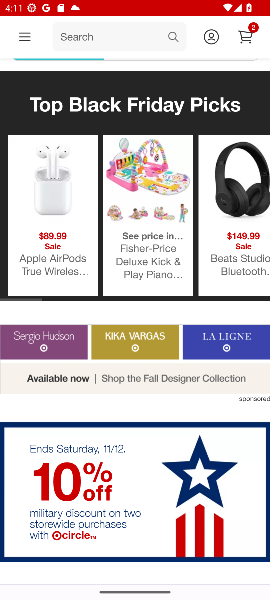
Step 106: drag from (158, 337) to (198, 136)
Your task to perform on an android device: Empty the shopping cart on target.com. Search for bose quietcomfort 35 on target.com, select the first entry, and add it to the cart. Image 107: 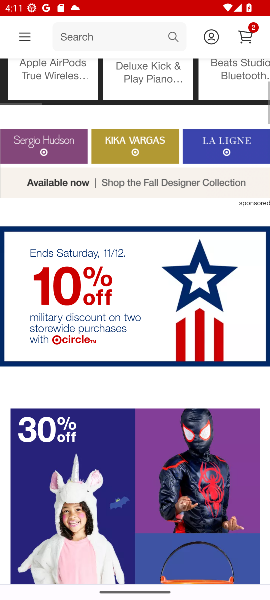
Step 107: drag from (191, 302) to (210, 175)
Your task to perform on an android device: Empty the shopping cart on target.com. Search for bose quietcomfort 35 on target.com, select the first entry, and add it to the cart. Image 108: 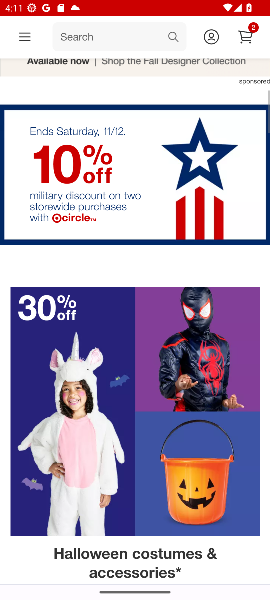
Step 108: click (189, 304)
Your task to perform on an android device: Empty the shopping cart on target.com. Search for bose quietcomfort 35 on target.com, select the first entry, and add it to the cart. Image 109: 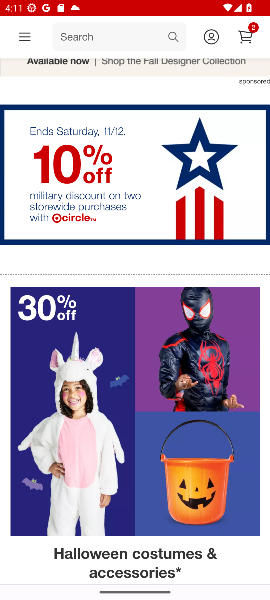
Step 109: drag from (158, 418) to (123, 187)
Your task to perform on an android device: Empty the shopping cart on target.com. Search for bose quietcomfort 35 on target.com, select the first entry, and add it to the cart. Image 110: 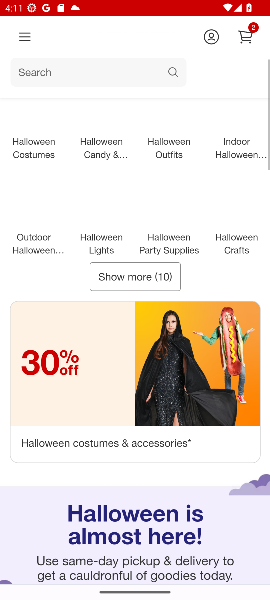
Step 110: drag from (112, 351) to (136, 199)
Your task to perform on an android device: Empty the shopping cart on target.com. Search for bose quietcomfort 35 on target.com, select the first entry, and add it to the cart. Image 111: 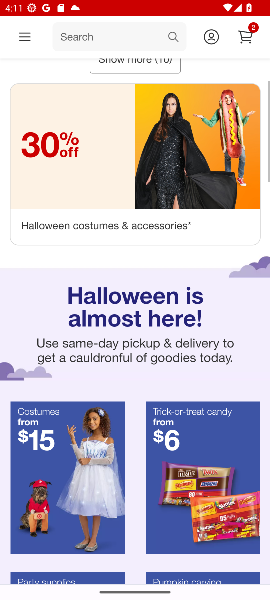
Step 111: drag from (119, 365) to (136, 277)
Your task to perform on an android device: Empty the shopping cart on target.com. Search for bose quietcomfort 35 on target.com, select the first entry, and add it to the cart. Image 112: 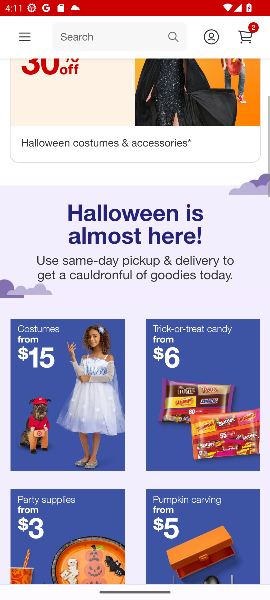
Step 112: drag from (138, 398) to (135, 278)
Your task to perform on an android device: Empty the shopping cart on target.com. Search for bose quietcomfort 35 on target.com, select the first entry, and add it to the cart. Image 113: 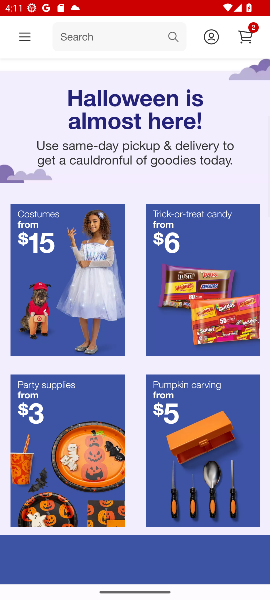
Step 113: drag from (104, 368) to (130, 246)
Your task to perform on an android device: Empty the shopping cart on target.com. Search for bose quietcomfort 35 on target.com, select the first entry, and add it to the cart. Image 114: 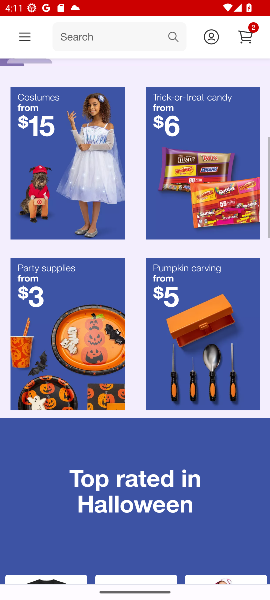
Step 114: drag from (117, 371) to (132, 220)
Your task to perform on an android device: Empty the shopping cart on target.com. Search for bose quietcomfort 35 on target.com, select the first entry, and add it to the cart. Image 115: 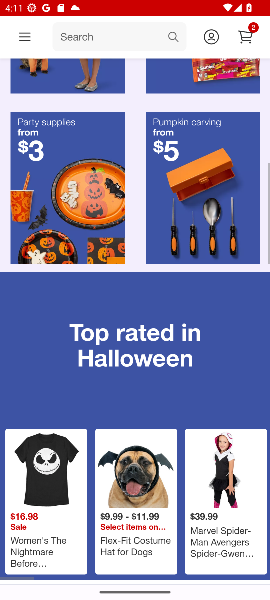
Step 115: drag from (112, 312) to (120, 220)
Your task to perform on an android device: Empty the shopping cart on target.com. Search for bose quietcomfort 35 on target.com, select the first entry, and add it to the cart. Image 116: 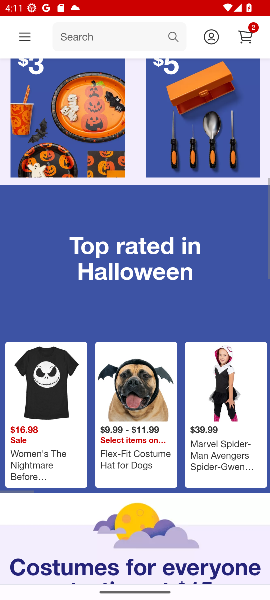
Step 116: drag from (98, 353) to (96, 242)
Your task to perform on an android device: Empty the shopping cart on target.com. Search for bose quietcomfort 35 on target.com, select the first entry, and add it to the cart. Image 117: 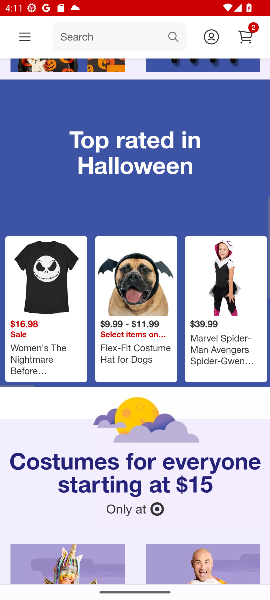
Step 117: drag from (89, 369) to (101, 244)
Your task to perform on an android device: Empty the shopping cart on target.com. Search for bose quietcomfort 35 on target.com, select the first entry, and add it to the cart. Image 118: 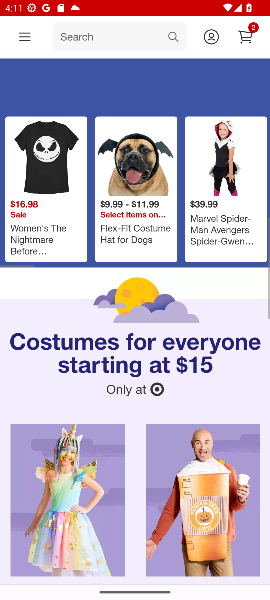
Step 118: drag from (95, 332) to (97, 254)
Your task to perform on an android device: Empty the shopping cart on target.com. Search for bose quietcomfort 35 on target.com, select the first entry, and add it to the cart. Image 119: 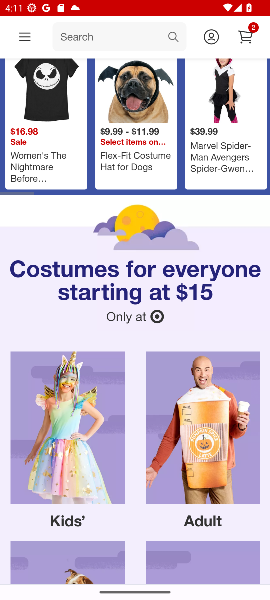
Step 119: drag from (64, 335) to (89, 220)
Your task to perform on an android device: Empty the shopping cart on target.com. Search for bose quietcomfort 35 on target.com, select the first entry, and add it to the cart. Image 120: 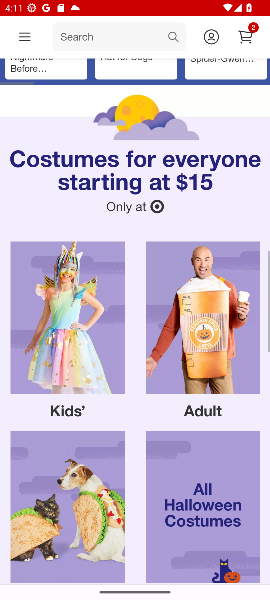
Step 120: drag from (48, 339) to (60, 214)
Your task to perform on an android device: Empty the shopping cart on target.com. Search for bose quietcomfort 35 on target.com, select the first entry, and add it to the cart. Image 121: 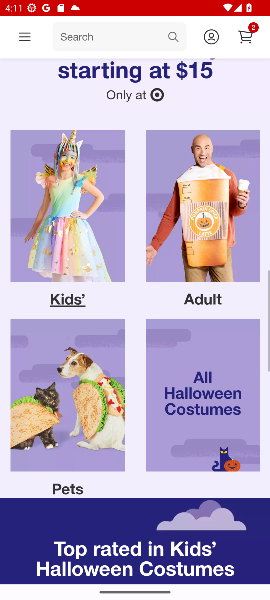
Step 121: drag from (41, 292) to (40, 223)
Your task to perform on an android device: Empty the shopping cart on target.com. Search for bose quietcomfort 35 on target.com, select the first entry, and add it to the cart. Image 122: 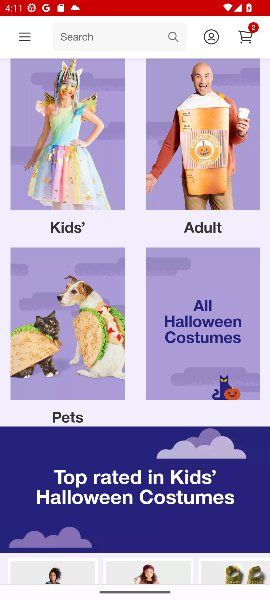
Step 122: drag from (36, 311) to (43, 122)
Your task to perform on an android device: Empty the shopping cart on target.com. Search for bose quietcomfort 35 on target.com, select the first entry, and add it to the cart. Image 123: 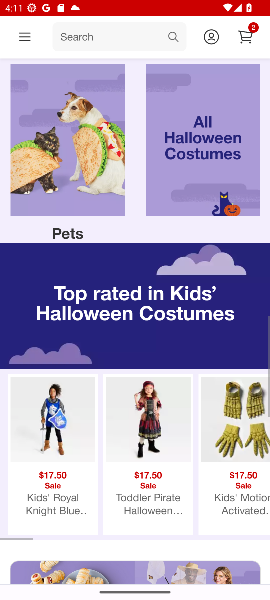
Step 123: drag from (48, 335) to (70, 193)
Your task to perform on an android device: Empty the shopping cart on target.com. Search for bose quietcomfort 35 on target.com, select the first entry, and add it to the cart. Image 124: 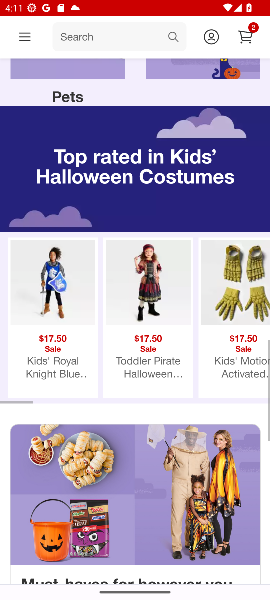
Step 124: click (36, 203)
Your task to perform on an android device: Empty the shopping cart on target.com. Search for bose quietcomfort 35 on target.com, select the first entry, and add it to the cart. Image 125: 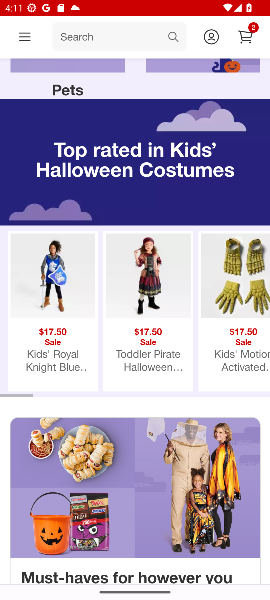
Step 125: task complete